Your task to perform on an android device: Is it going to rain today? Image 0: 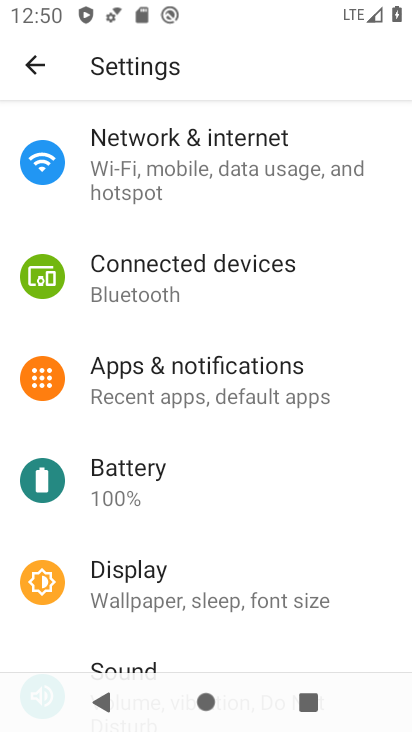
Step 0: press home button
Your task to perform on an android device: Is it going to rain today? Image 1: 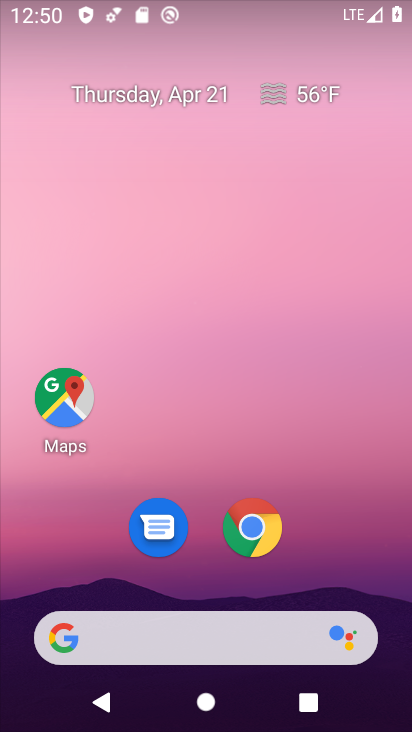
Step 1: click (181, 634)
Your task to perform on an android device: Is it going to rain today? Image 2: 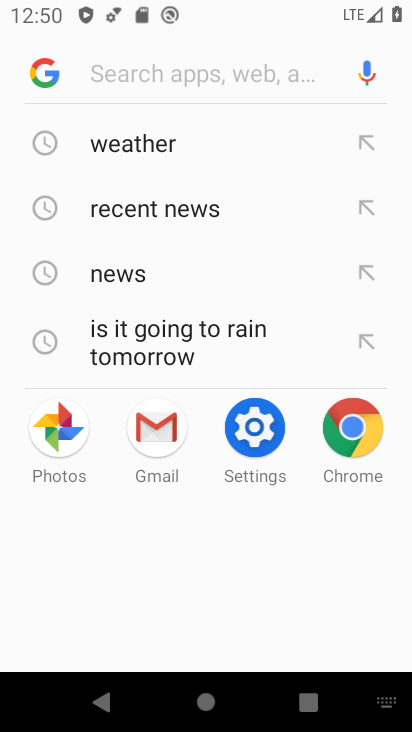
Step 2: type "Is it going to rain today?"
Your task to perform on an android device: Is it going to rain today? Image 3: 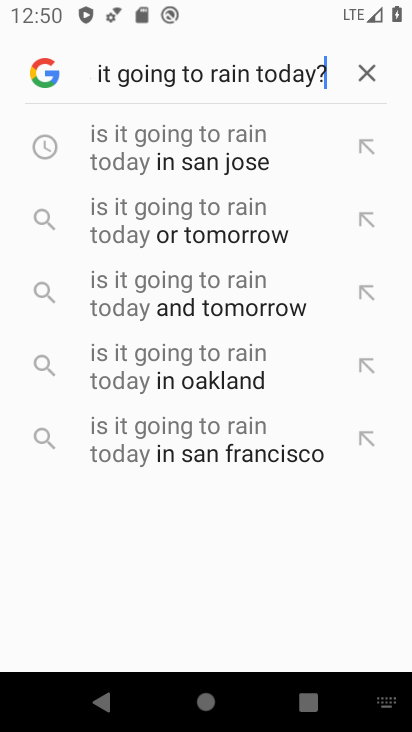
Step 3: click (201, 143)
Your task to perform on an android device: Is it going to rain today? Image 4: 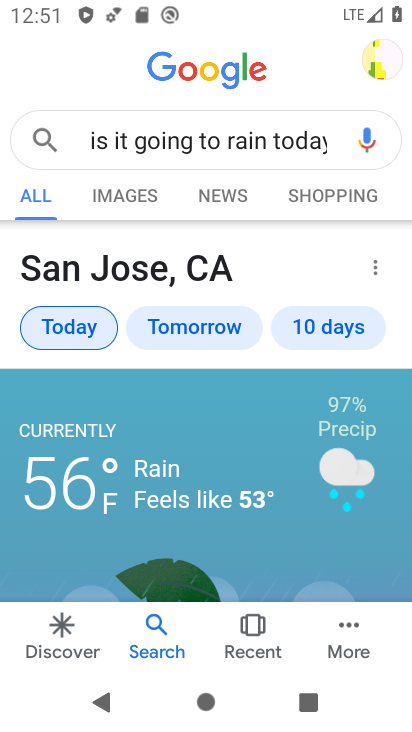
Step 4: task complete